Your task to perform on an android device: turn off translation in the chrome app Image 0: 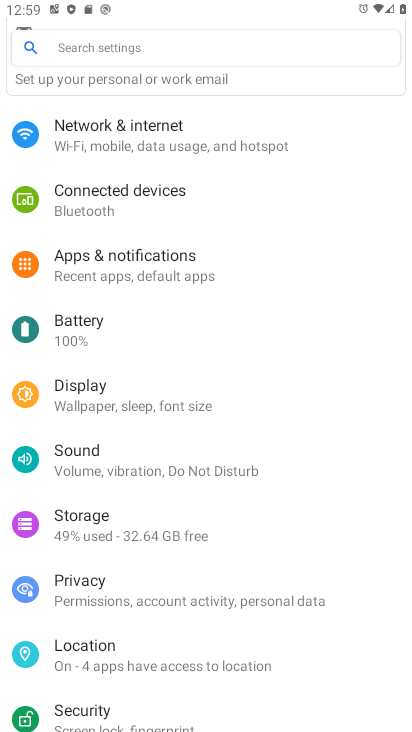
Step 0: press home button
Your task to perform on an android device: turn off translation in the chrome app Image 1: 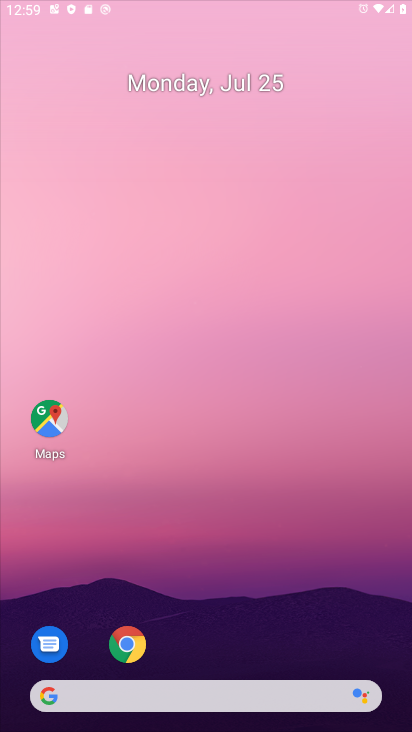
Step 1: drag from (333, 608) to (53, 3)
Your task to perform on an android device: turn off translation in the chrome app Image 2: 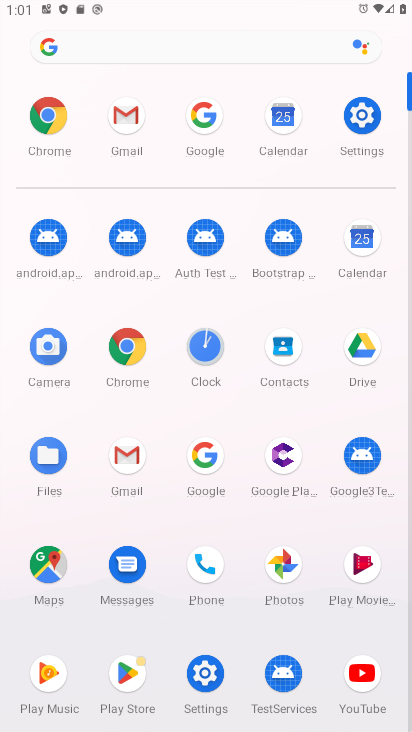
Step 2: click (116, 363)
Your task to perform on an android device: turn off translation in the chrome app Image 3: 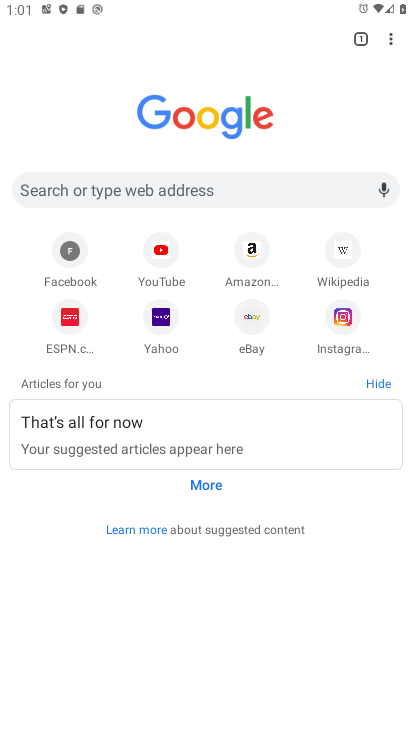
Step 3: click (393, 33)
Your task to perform on an android device: turn off translation in the chrome app Image 4: 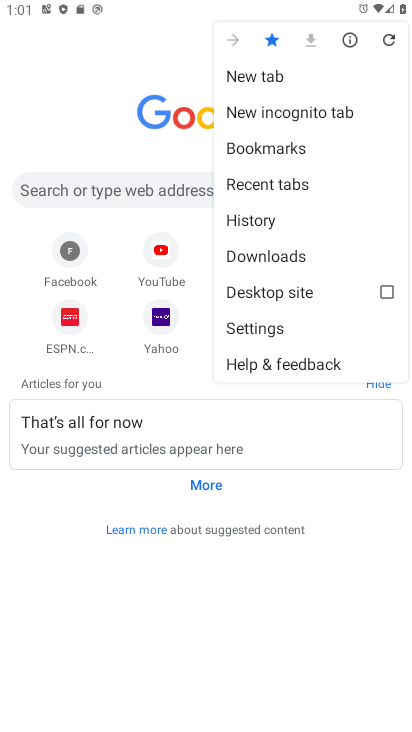
Step 4: click (273, 329)
Your task to perform on an android device: turn off translation in the chrome app Image 5: 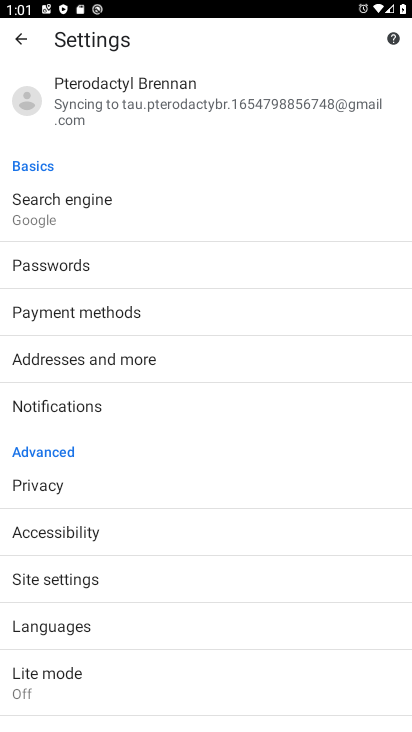
Step 5: click (69, 622)
Your task to perform on an android device: turn off translation in the chrome app Image 6: 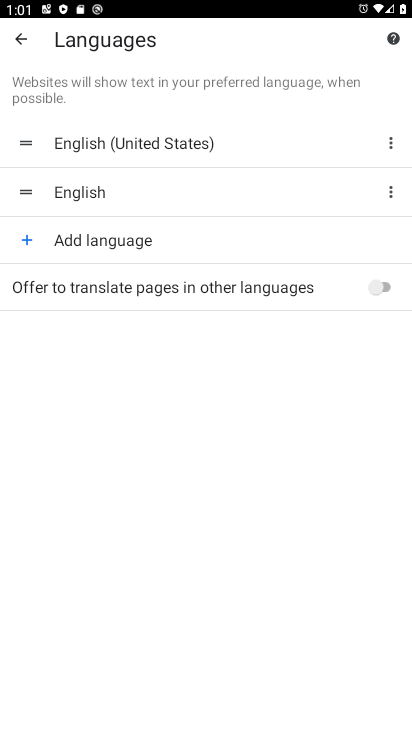
Step 6: task complete